Your task to perform on an android device: see tabs open on other devices in the chrome app Image 0: 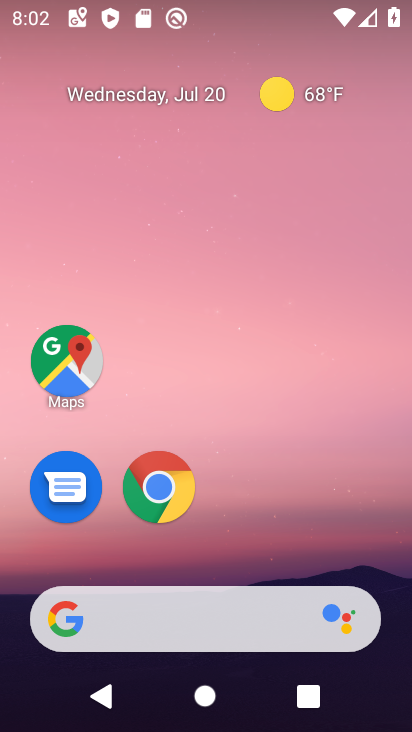
Step 0: drag from (361, 537) to (344, 107)
Your task to perform on an android device: see tabs open on other devices in the chrome app Image 1: 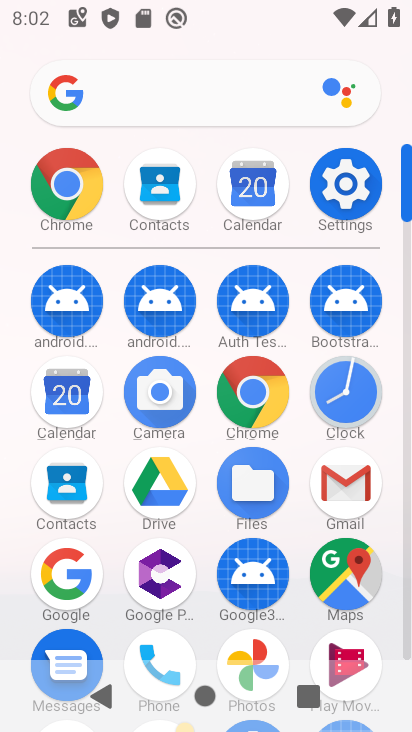
Step 1: click (264, 387)
Your task to perform on an android device: see tabs open on other devices in the chrome app Image 2: 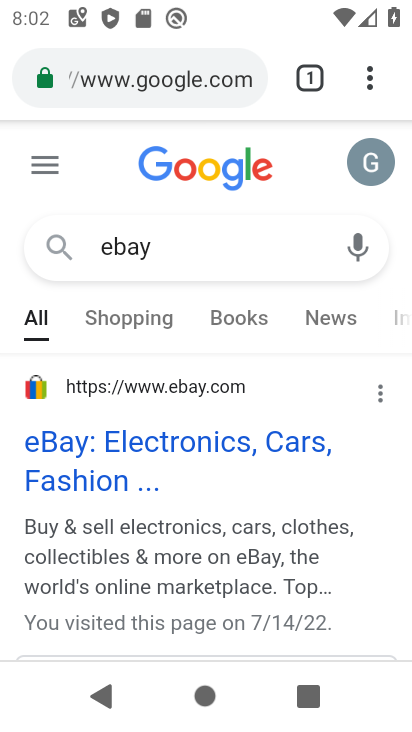
Step 2: click (373, 81)
Your task to perform on an android device: see tabs open on other devices in the chrome app Image 3: 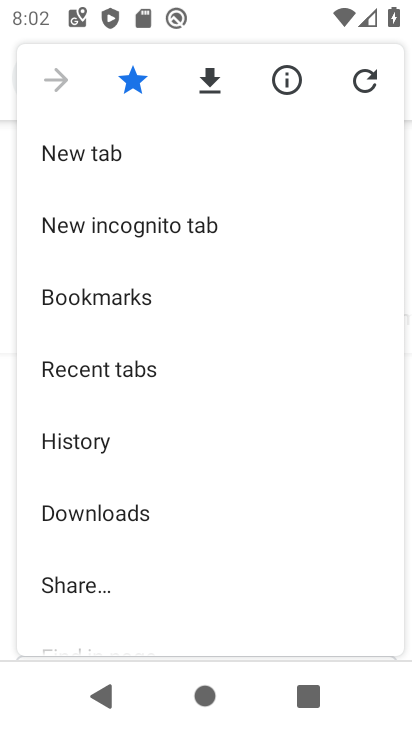
Step 3: drag from (313, 410) to (321, 327)
Your task to perform on an android device: see tabs open on other devices in the chrome app Image 4: 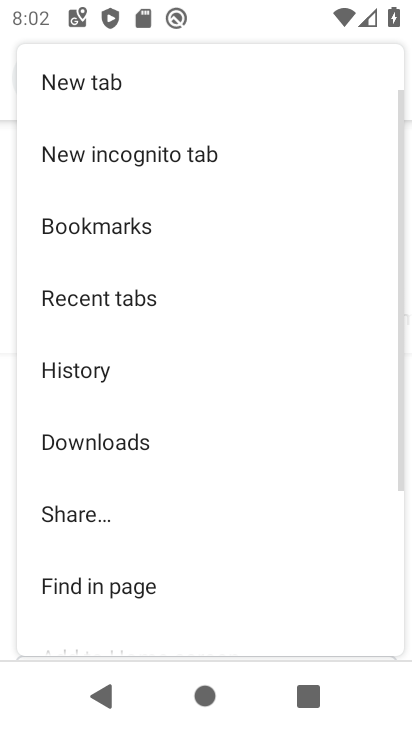
Step 4: drag from (349, 459) to (343, 354)
Your task to perform on an android device: see tabs open on other devices in the chrome app Image 5: 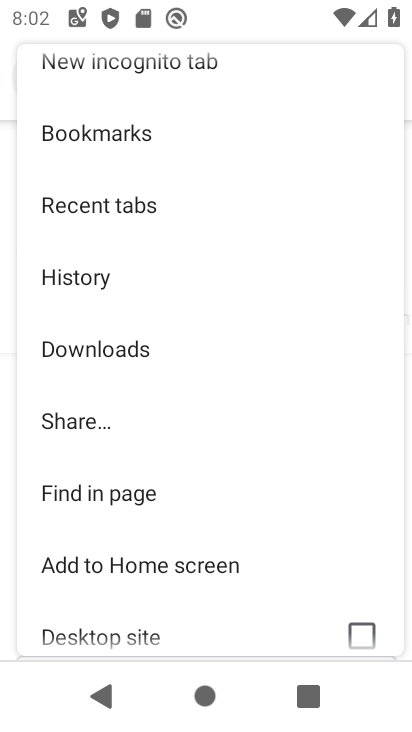
Step 5: drag from (310, 503) to (293, 387)
Your task to perform on an android device: see tabs open on other devices in the chrome app Image 6: 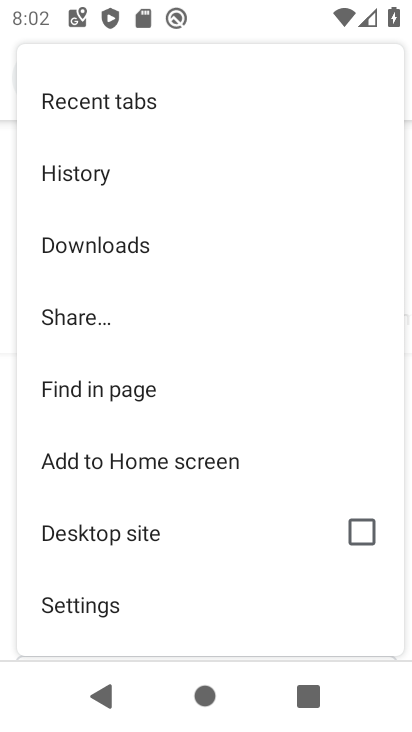
Step 6: drag from (297, 239) to (297, 377)
Your task to perform on an android device: see tabs open on other devices in the chrome app Image 7: 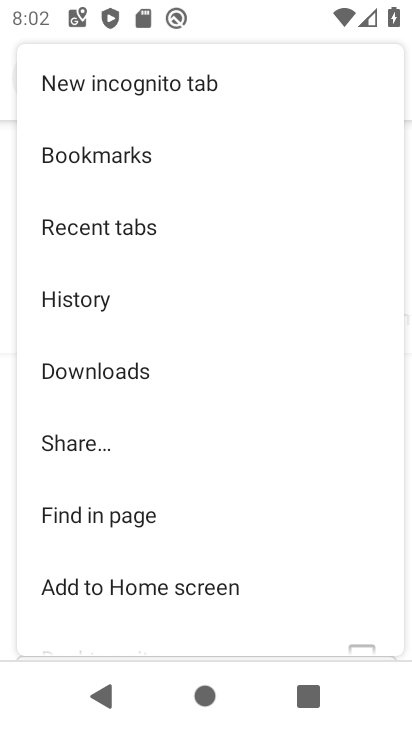
Step 7: drag from (276, 219) to (275, 424)
Your task to perform on an android device: see tabs open on other devices in the chrome app Image 8: 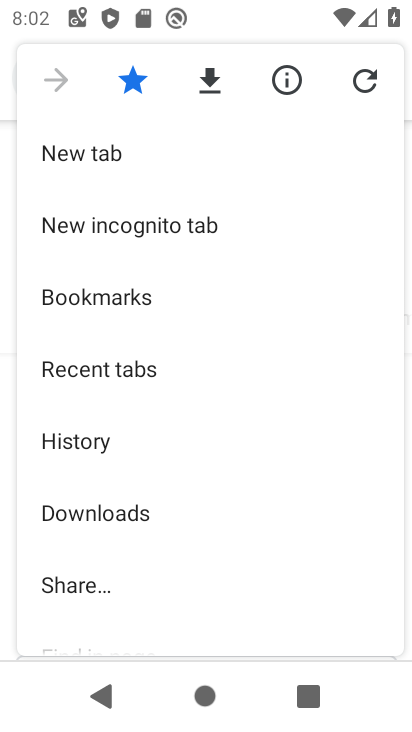
Step 8: click (183, 369)
Your task to perform on an android device: see tabs open on other devices in the chrome app Image 9: 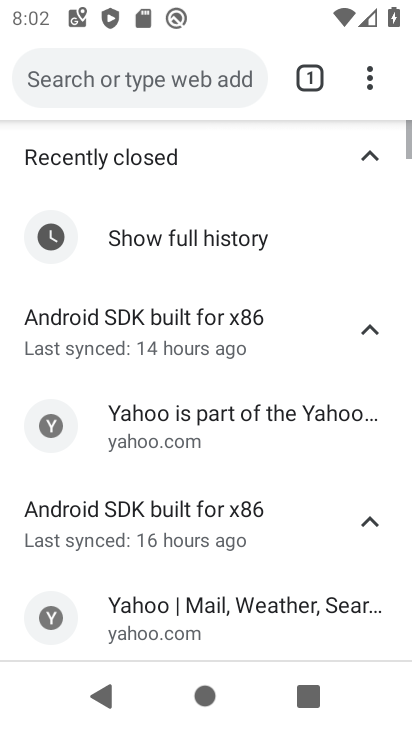
Step 9: click (307, 71)
Your task to perform on an android device: see tabs open on other devices in the chrome app Image 10: 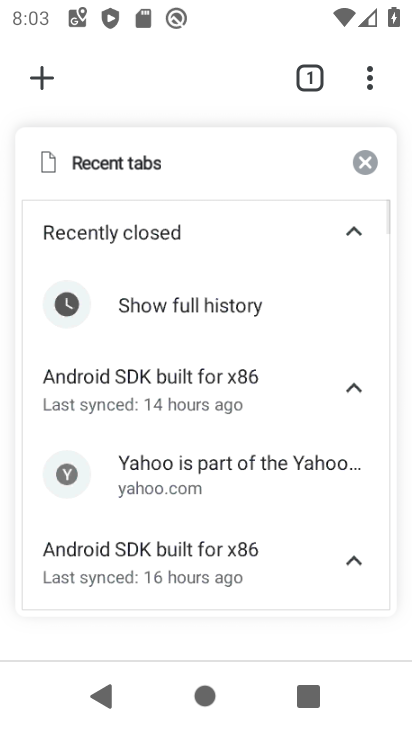
Step 10: task complete